Your task to perform on an android device: make emails show in primary in the gmail app Image 0: 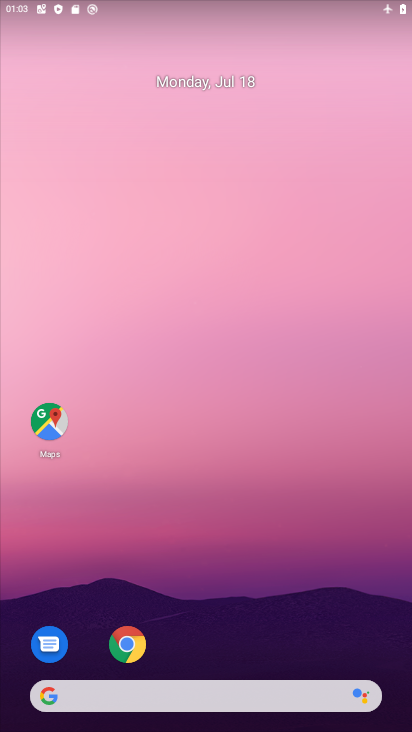
Step 0: press home button
Your task to perform on an android device: make emails show in primary in the gmail app Image 1: 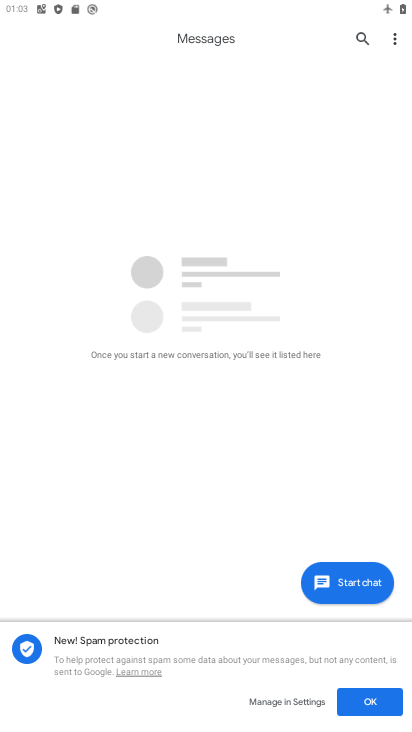
Step 1: drag from (278, 602) to (288, 0)
Your task to perform on an android device: make emails show in primary in the gmail app Image 2: 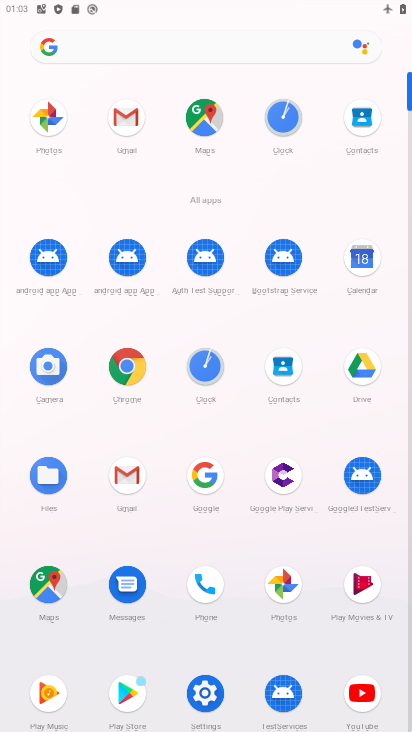
Step 2: click (141, 486)
Your task to perform on an android device: make emails show in primary in the gmail app Image 3: 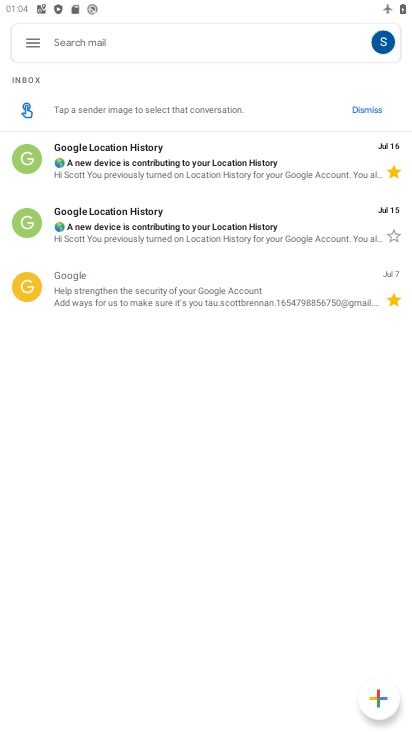
Step 3: task complete